Your task to perform on an android device: allow cookies in the chrome app Image 0: 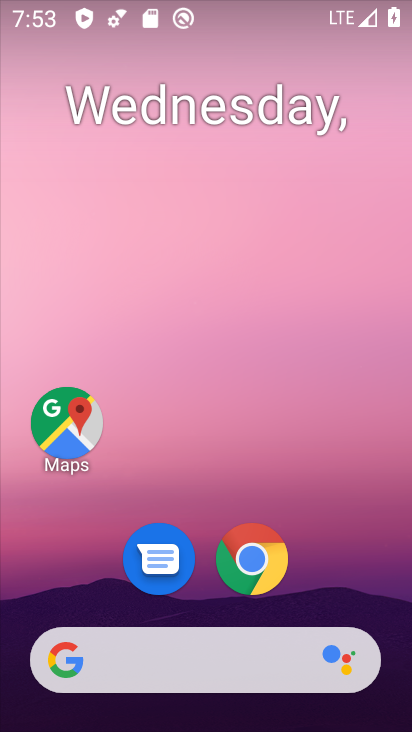
Step 0: click (267, 552)
Your task to perform on an android device: allow cookies in the chrome app Image 1: 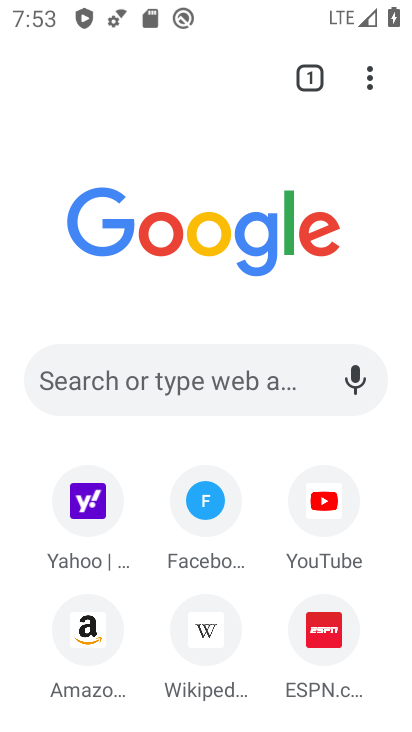
Step 1: drag from (361, 80) to (123, 651)
Your task to perform on an android device: allow cookies in the chrome app Image 2: 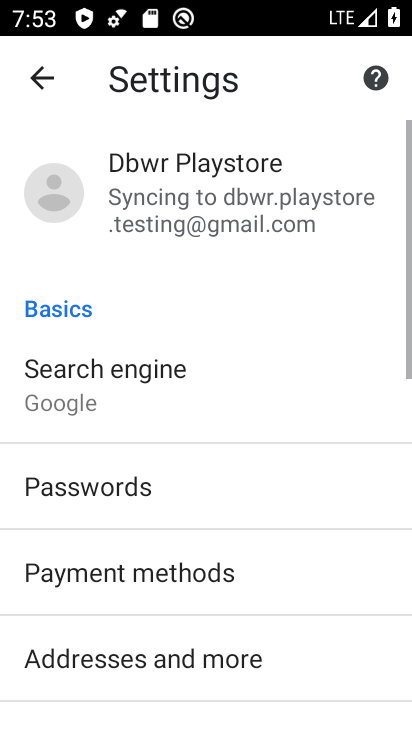
Step 2: drag from (113, 652) to (264, 100)
Your task to perform on an android device: allow cookies in the chrome app Image 3: 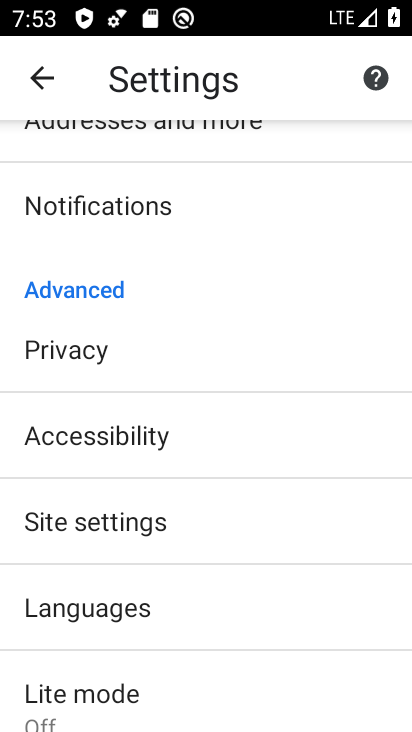
Step 3: click (116, 520)
Your task to perform on an android device: allow cookies in the chrome app Image 4: 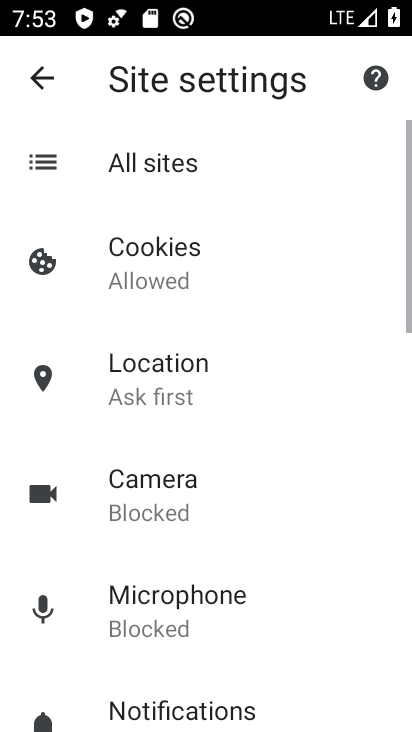
Step 4: click (134, 264)
Your task to perform on an android device: allow cookies in the chrome app Image 5: 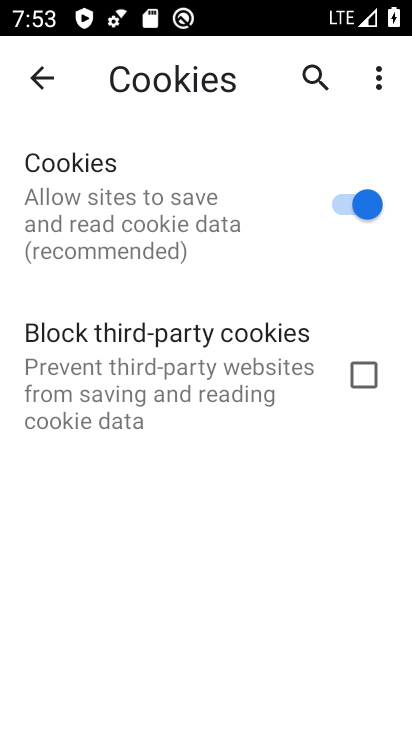
Step 5: task complete